Your task to perform on an android device: turn on sleep mode Image 0: 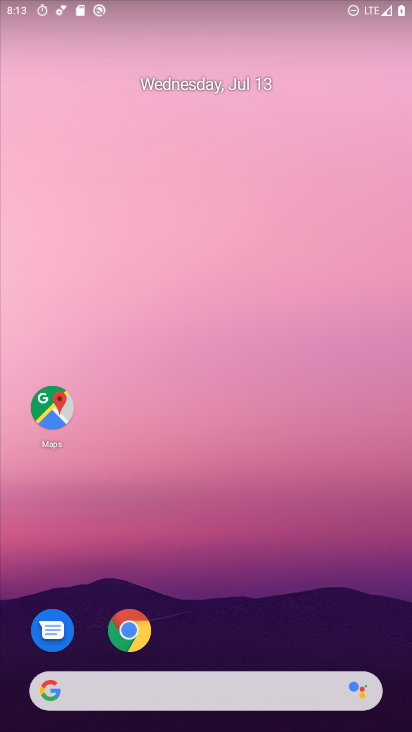
Step 0: drag from (398, 657) to (28, 258)
Your task to perform on an android device: turn on sleep mode Image 1: 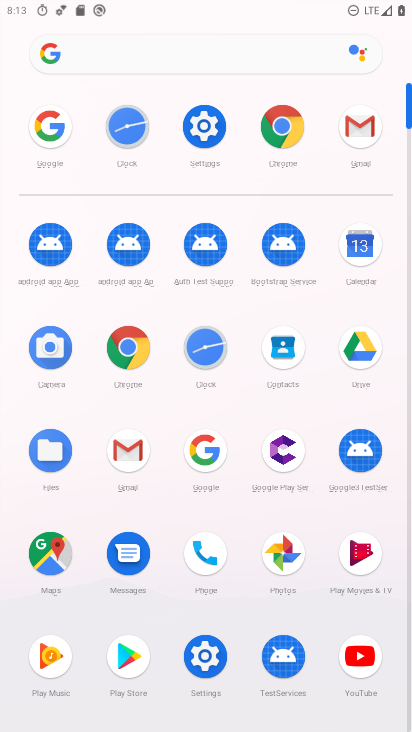
Step 1: click (203, 660)
Your task to perform on an android device: turn on sleep mode Image 2: 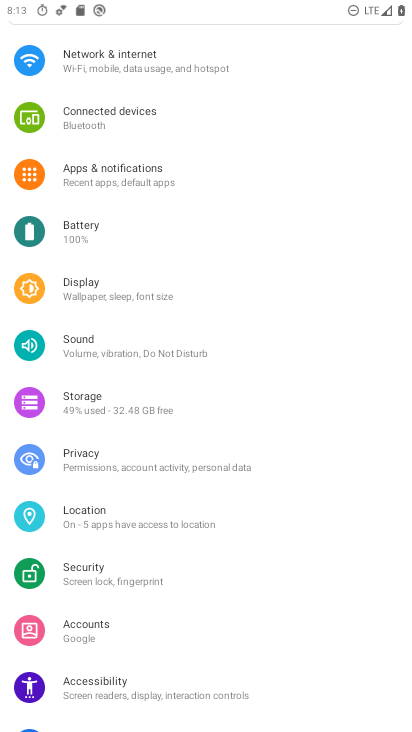
Step 2: task complete